Your task to perform on an android device: stop showing notifications on the lock screen Image 0: 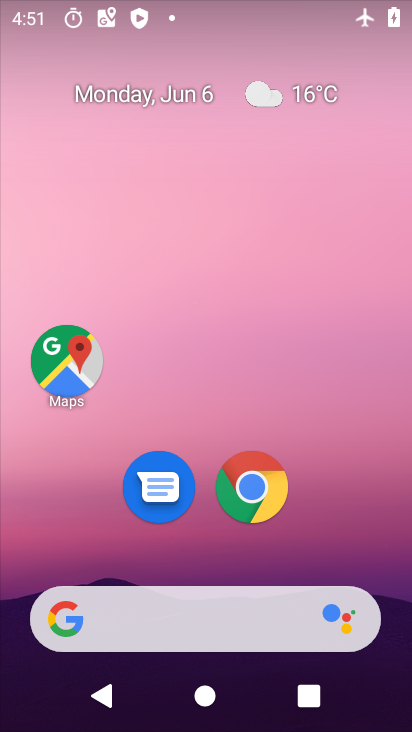
Step 0: drag from (364, 396) to (360, 85)
Your task to perform on an android device: stop showing notifications on the lock screen Image 1: 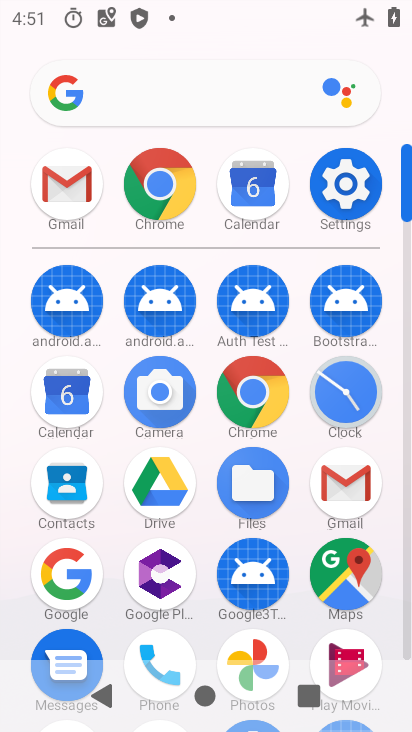
Step 1: click (359, 190)
Your task to perform on an android device: stop showing notifications on the lock screen Image 2: 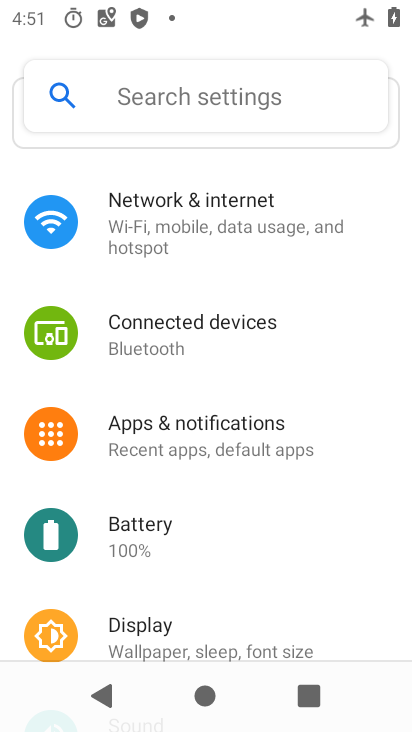
Step 2: click (225, 436)
Your task to perform on an android device: stop showing notifications on the lock screen Image 3: 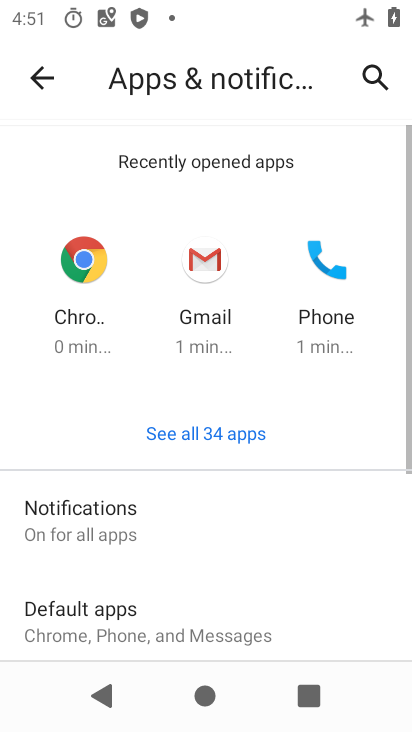
Step 3: click (103, 531)
Your task to perform on an android device: stop showing notifications on the lock screen Image 4: 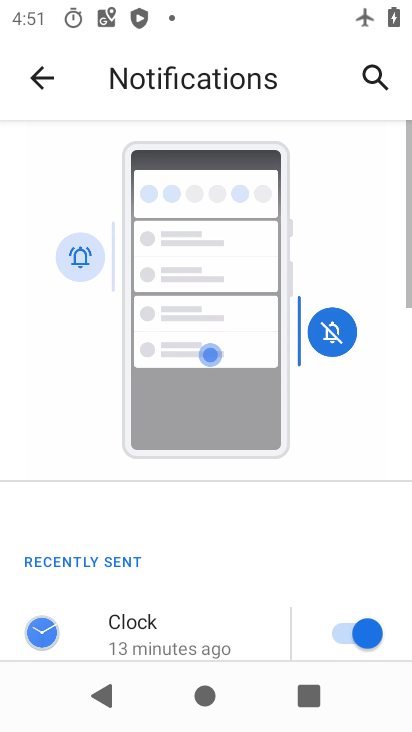
Step 4: drag from (247, 597) to (302, 48)
Your task to perform on an android device: stop showing notifications on the lock screen Image 5: 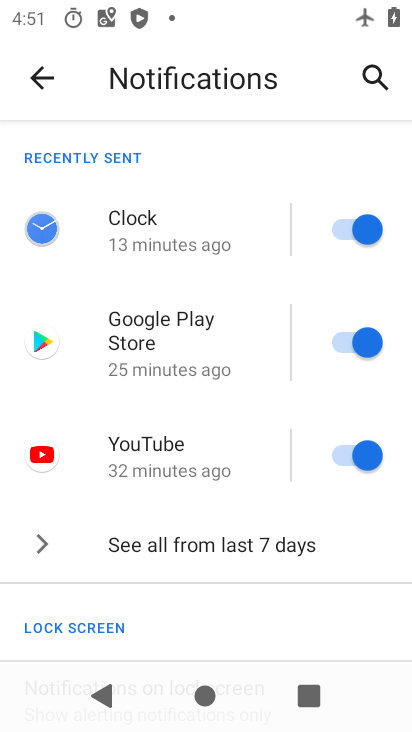
Step 5: drag from (269, 422) to (270, 99)
Your task to perform on an android device: stop showing notifications on the lock screen Image 6: 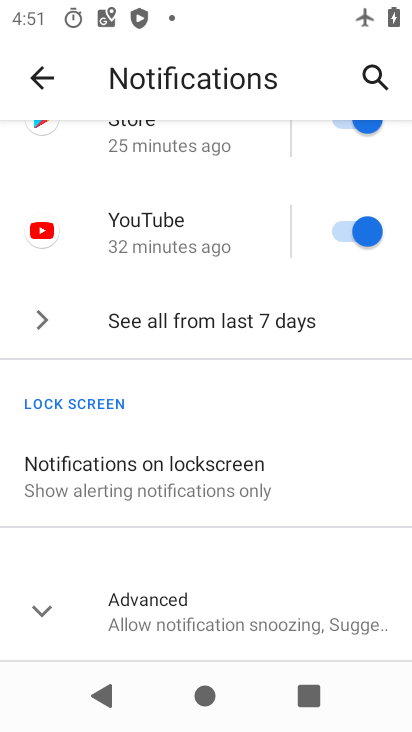
Step 6: click (201, 474)
Your task to perform on an android device: stop showing notifications on the lock screen Image 7: 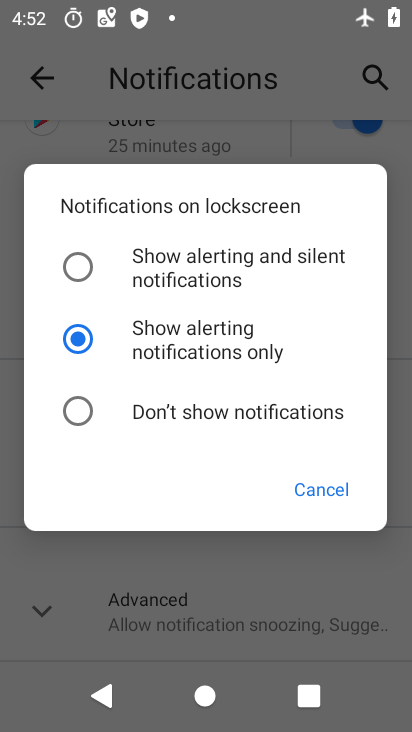
Step 7: click (183, 415)
Your task to perform on an android device: stop showing notifications on the lock screen Image 8: 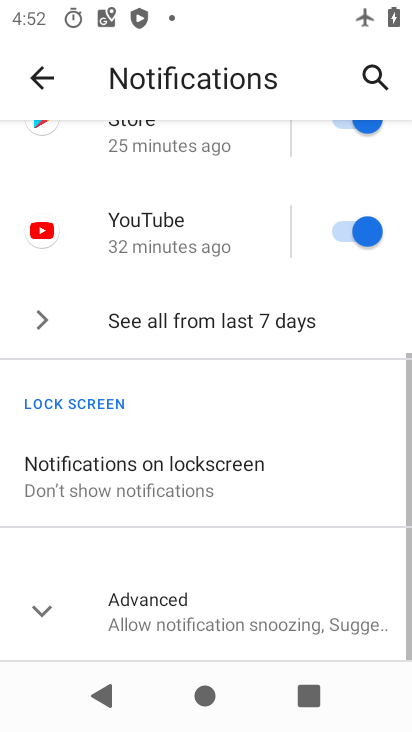
Step 8: task complete